Your task to perform on an android device: show emergency info Image 0: 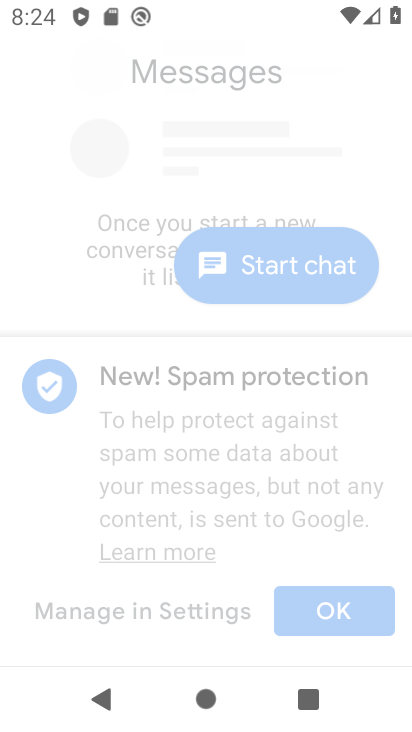
Step 0: drag from (214, 564) to (168, 118)
Your task to perform on an android device: show emergency info Image 1: 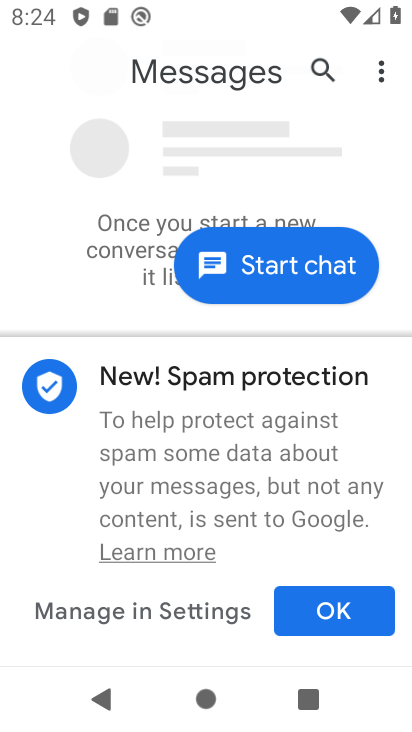
Step 1: press home button
Your task to perform on an android device: show emergency info Image 2: 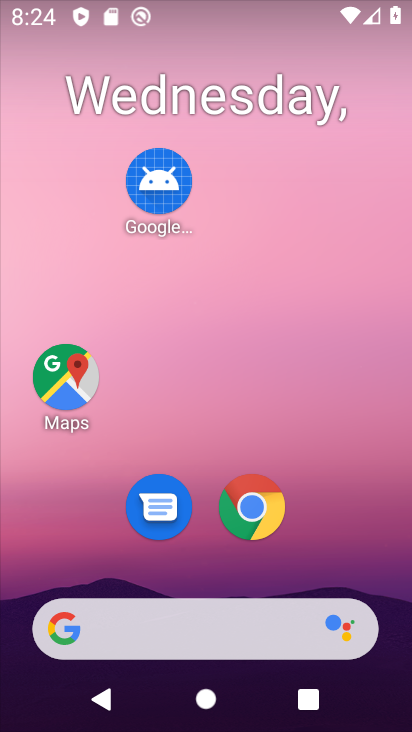
Step 2: drag from (253, 576) to (237, 16)
Your task to perform on an android device: show emergency info Image 3: 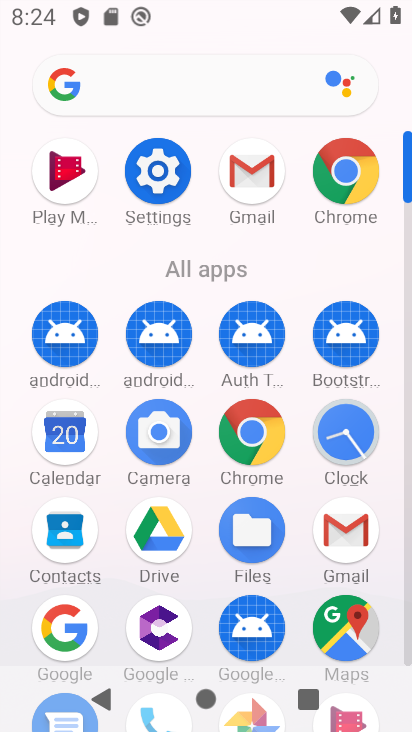
Step 3: click (162, 179)
Your task to perform on an android device: show emergency info Image 4: 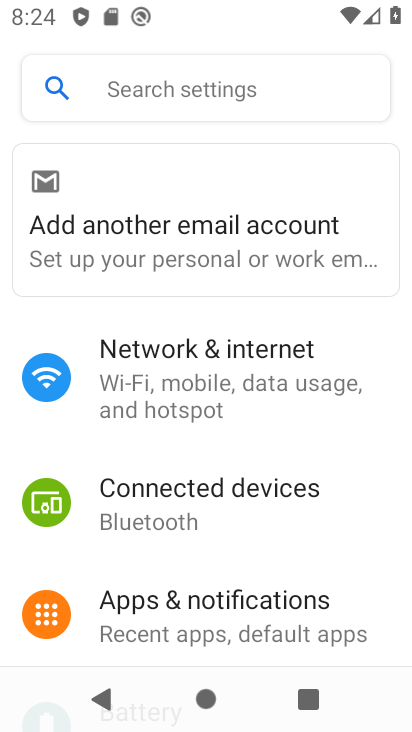
Step 4: drag from (161, 568) to (167, 128)
Your task to perform on an android device: show emergency info Image 5: 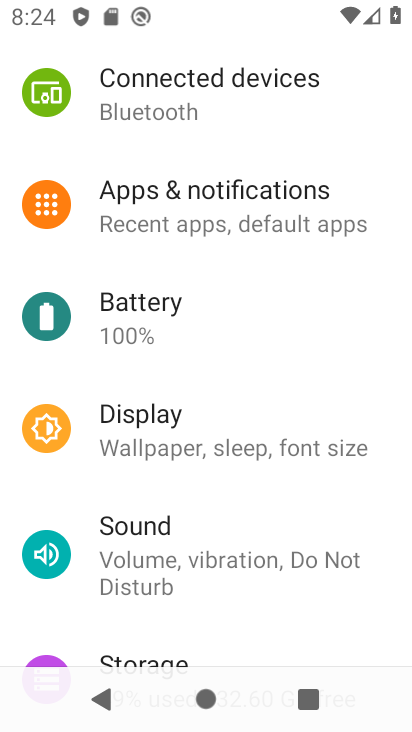
Step 5: drag from (171, 548) to (141, 35)
Your task to perform on an android device: show emergency info Image 6: 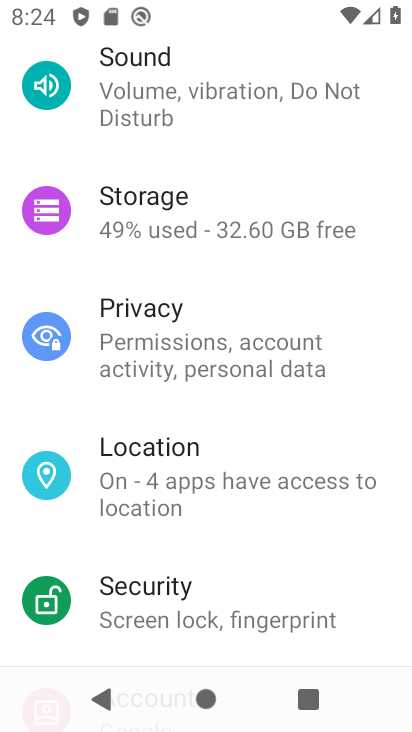
Step 6: drag from (127, 578) to (114, 152)
Your task to perform on an android device: show emergency info Image 7: 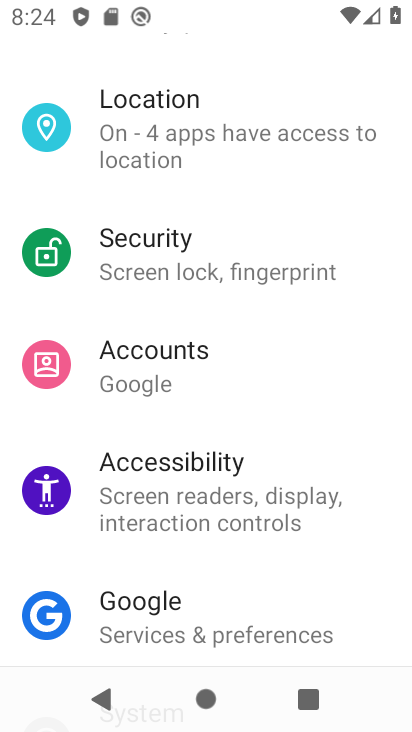
Step 7: drag from (203, 551) to (192, 124)
Your task to perform on an android device: show emergency info Image 8: 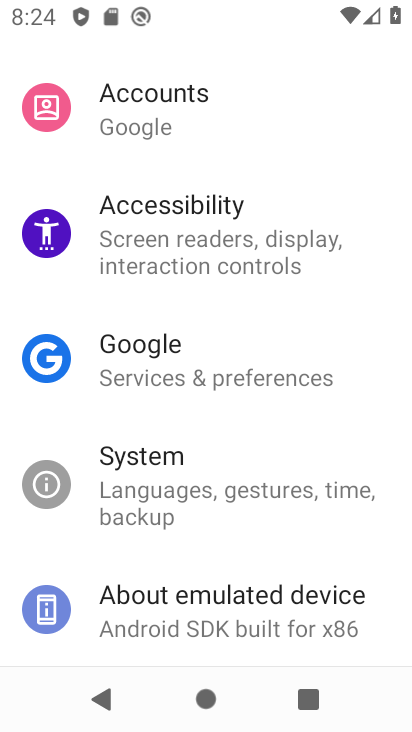
Step 8: click (259, 607)
Your task to perform on an android device: show emergency info Image 9: 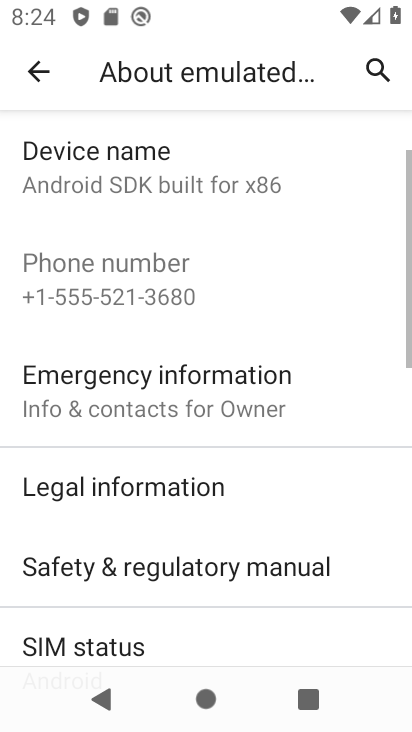
Step 9: click (197, 360)
Your task to perform on an android device: show emergency info Image 10: 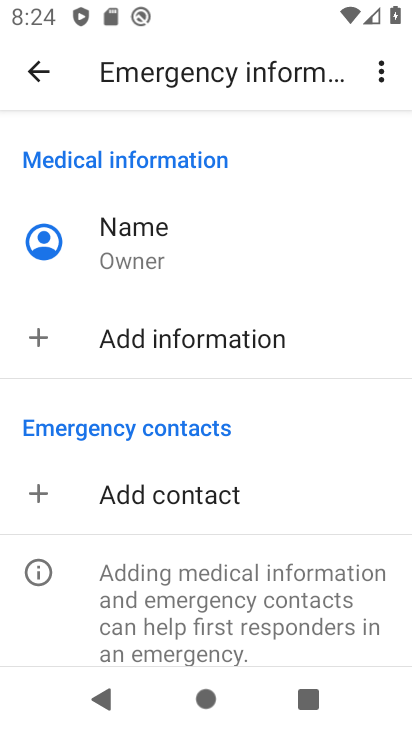
Step 10: task complete